Your task to perform on an android device: toggle airplane mode Image 0: 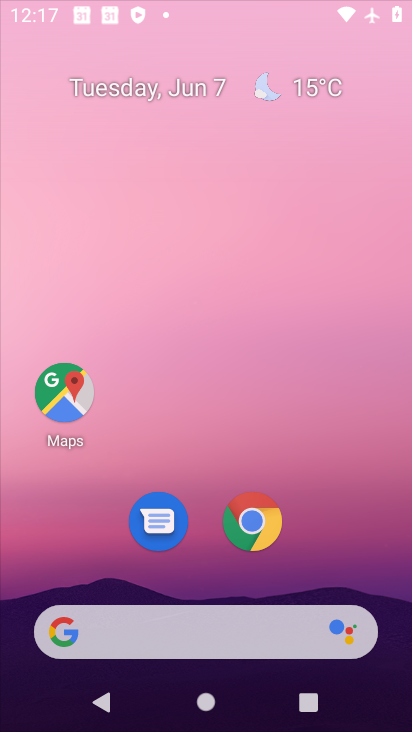
Step 0: click (374, 12)
Your task to perform on an android device: toggle airplane mode Image 1: 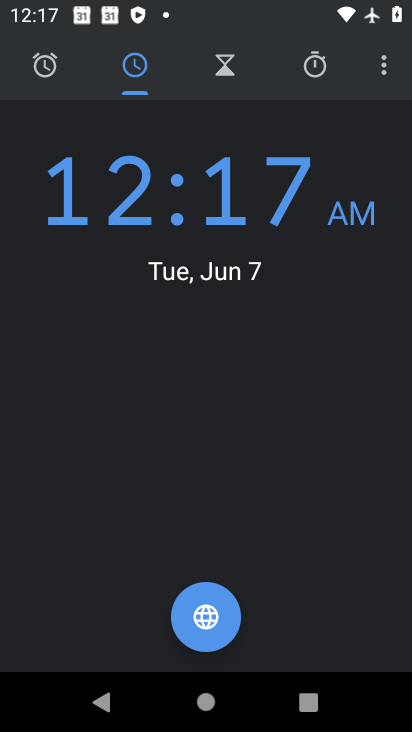
Step 1: press back button
Your task to perform on an android device: toggle airplane mode Image 2: 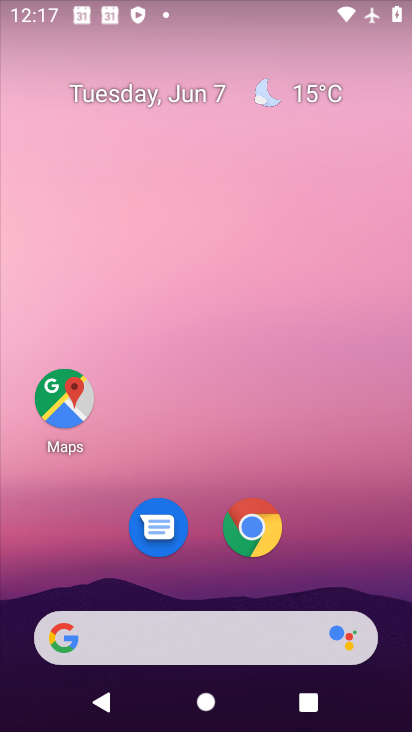
Step 2: drag from (280, 677) to (260, 164)
Your task to perform on an android device: toggle airplane mode Image 3: 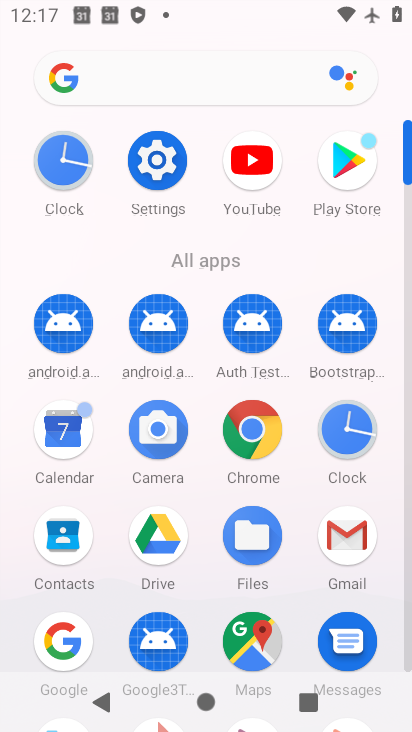
Step 3: drag from (272, 660) to (255, 144)
Your task to perform on an android device: toggle airplane mode Image 4: 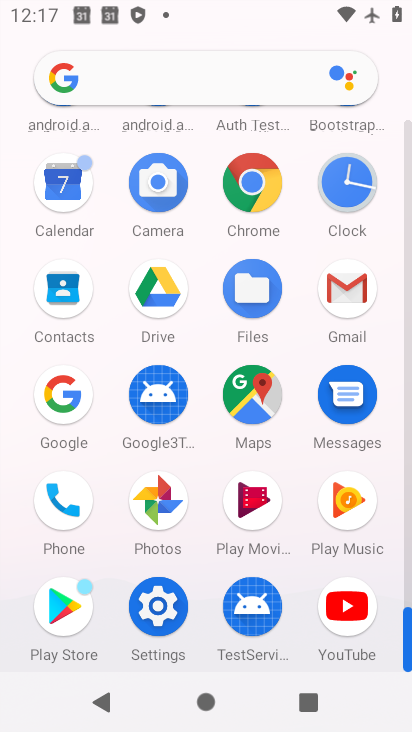
Step 4: click (156, 606)
Your task to perform on an android device: toggle airplane mode Image 5: 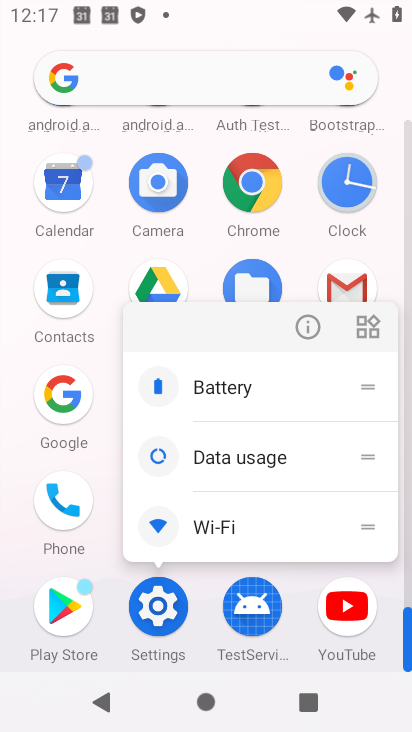
Step 5: click (159, 604)
Your task to perform on an android device: toggle airplane mode Image 6: 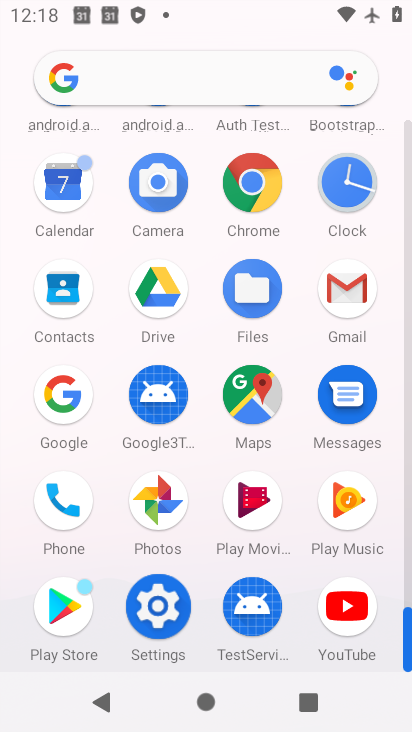
Step 6: click (160, 603)
Your task to perform on an android device: toggle airplane mode Image 7: 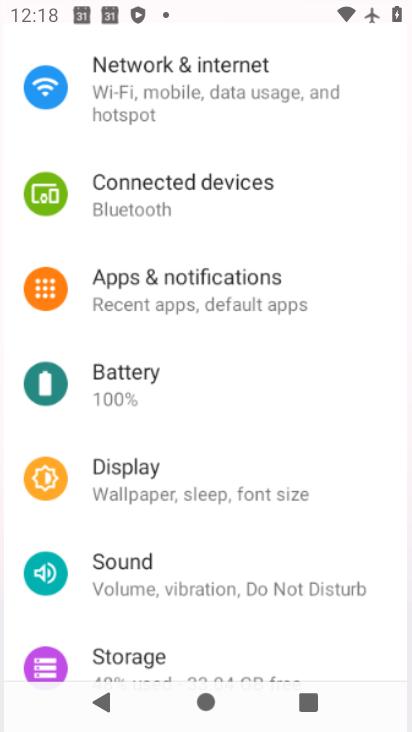
Step 7: click (161, 603)
Your task to perform on an android device: toggle airplane mode Image 8: 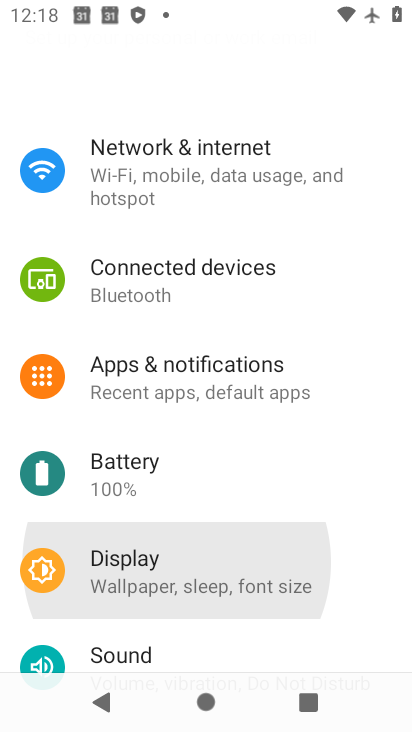
Step 8: click (166, 596)
Your task to perform on an android device: toggle airplane mode Image 9: 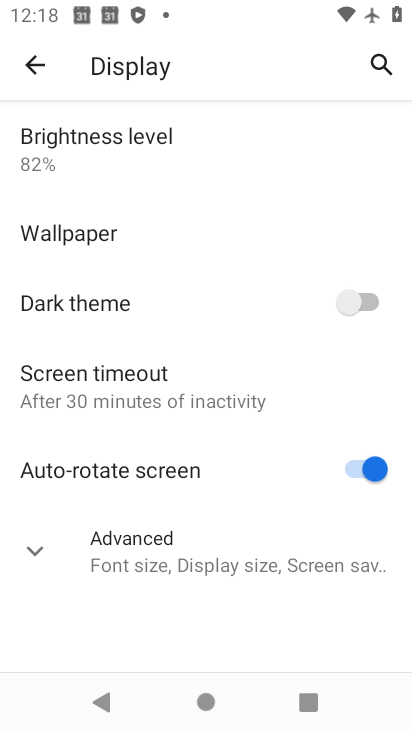
Step 9: click (32, 93)
Your task to perform on an android device: toggle airplane mode Image 10: 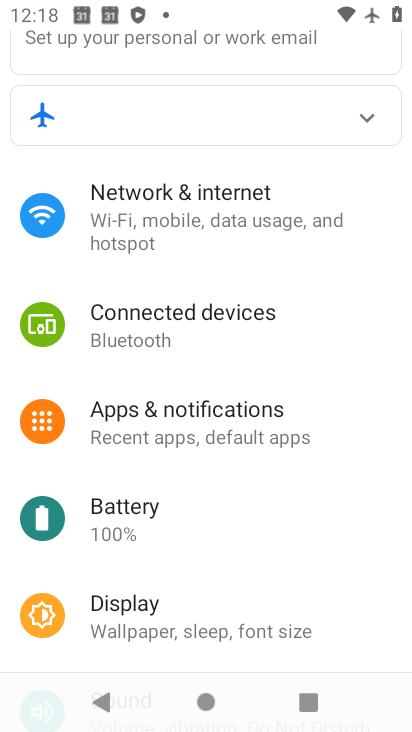
Step 10: click (176, 209)
Your task to perform on an android device: toggle airplane mode Image 11: 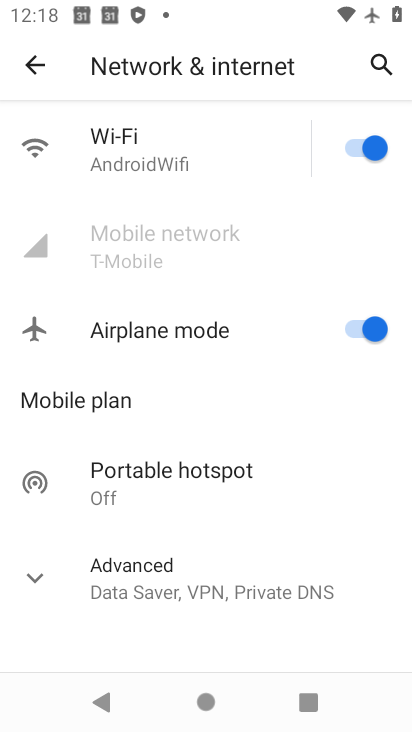
Step 11: click (379, 325)
Your task to perform on an android device: toggle airplane mode Image 12: 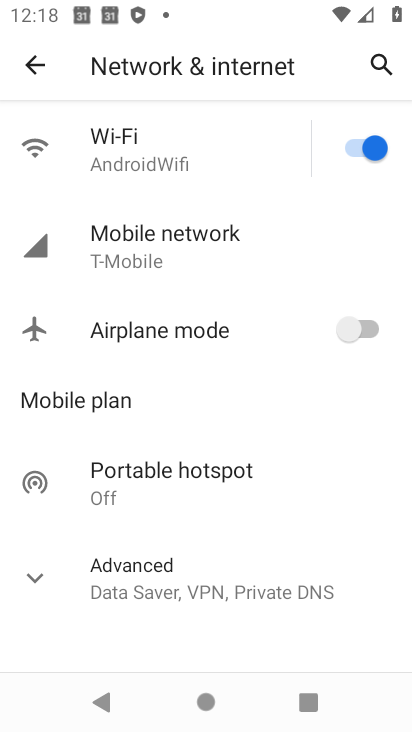
Step 12: task complete